Your task to perform on an android device: turn off notifications settings in the gmail app Image 0: 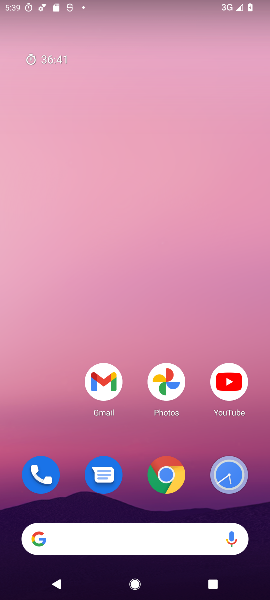
Step 0: press home button
Your task to perform on an android device: turn off notifications settings in the gmail app Image 1: 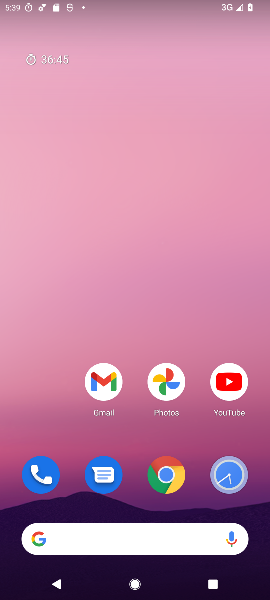
Step 1: drag from (54, 424) to (53, 147)
Your task to perform on an android device: turn off notifications settings in the gmail app Image 2: 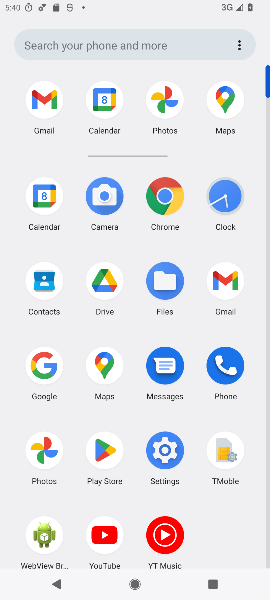
Step 2: click (225, 282)
Your task to perform on an android device: turn off notifications settings in the gmail app Image 3: 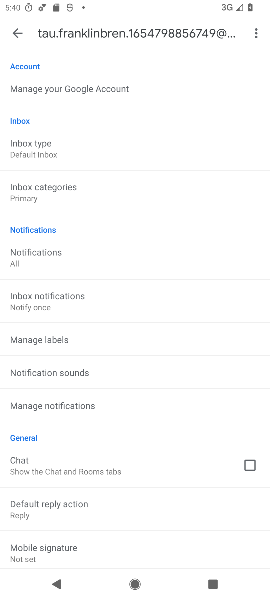
Step 3: drag from (189, 136) to (182, 197)
Your task to perform on an android device: turn off notifications settings in the gmail app Image 4: 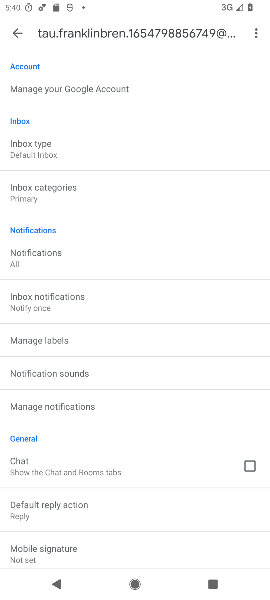
Step 4: drag from (170, 119) to (167, 260)
Your task to perform on an android device: turn off notifications settings in the gmail app Image 5: 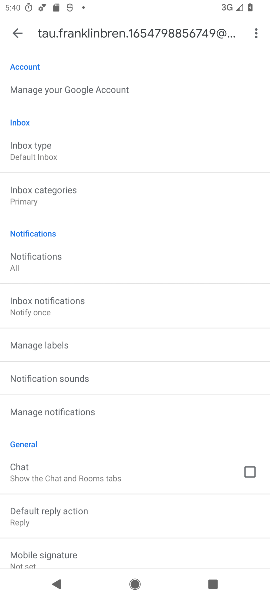
Step 5: drag from (169, 321) to (168, 231)
Your task to perform on an android device: turn off notifications settings in the gmail app Image 6: 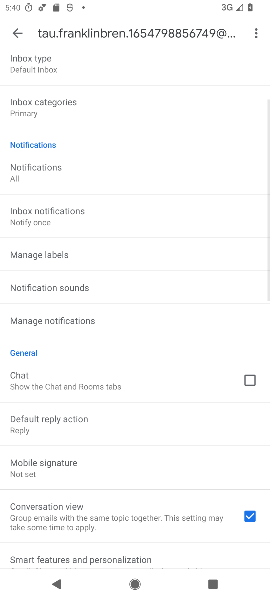
Step 6: drag from (155, 346) to (167, 255)
Your task to perform on an android device: turn off notifications settings in the gmail app Image 7: 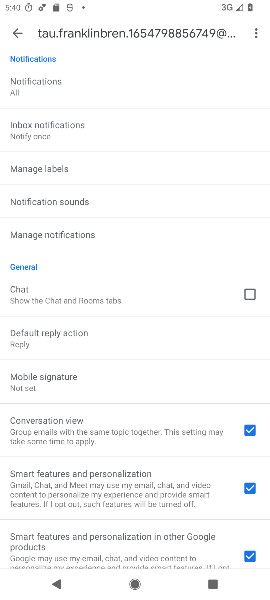
Step 7: click (152, 235)
Your task to perform on an android device: turn off notifications settings in the gmail app Image 8: 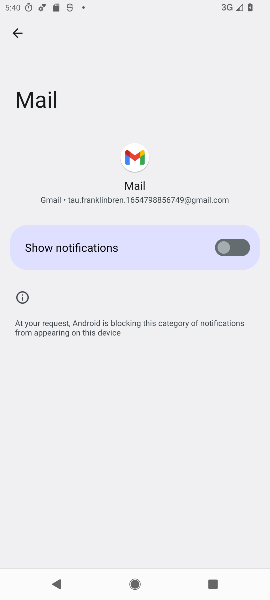
Step 8: task complete